Your task to perform on an android device: turn on wifi Image 0: 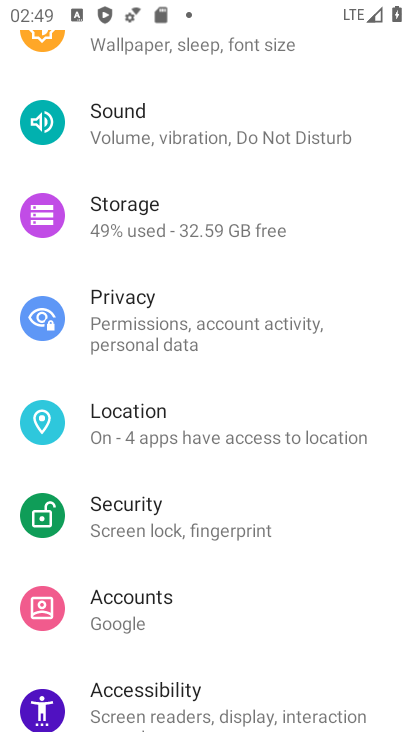
Step 0: drag from (335, 120) to (296, 621)
Your task to perform on an android device: turn on wifi Image 1: 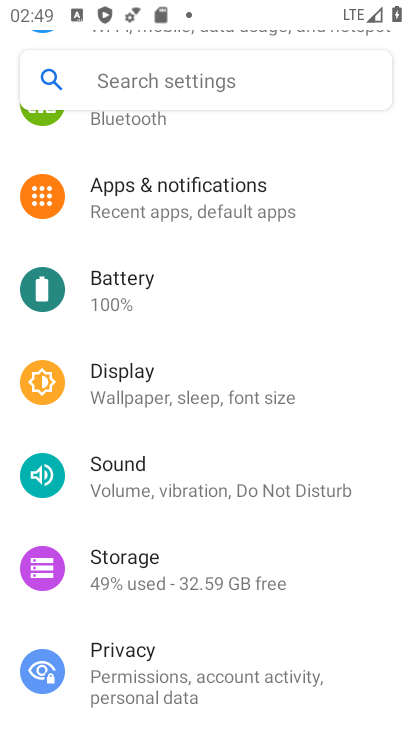
Step 1: drag from (306, 155) to (256, 599)
Your task to perform on an android device: turn on wifi Image 2: 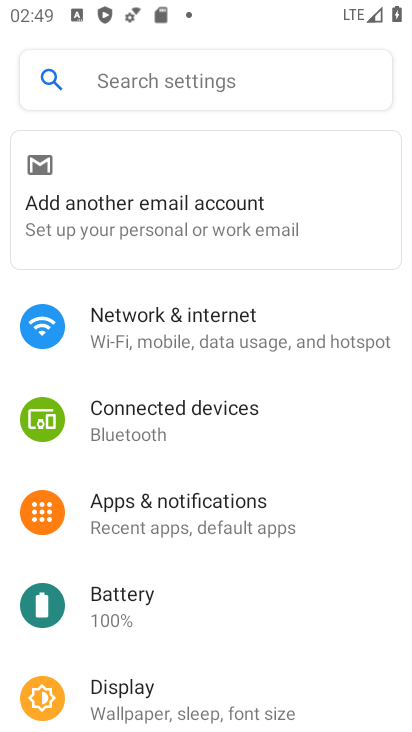
Step 2: click (313, 333)
Your task to perform on an android device: turn on wifi Image 3: 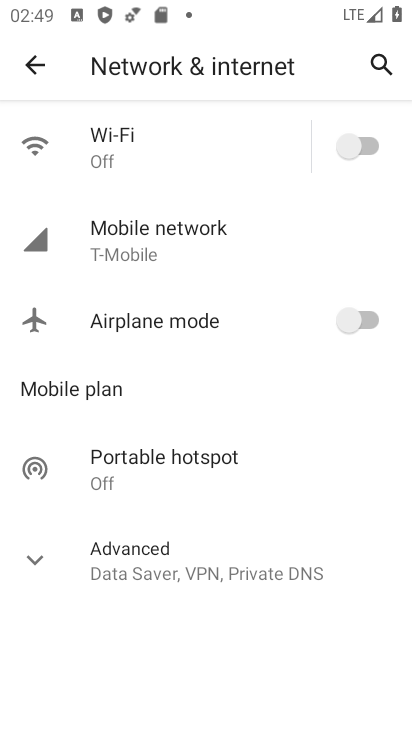
Step 3: click (371, 142)
Your task to perform on an android device: turn on wifi Image 4: 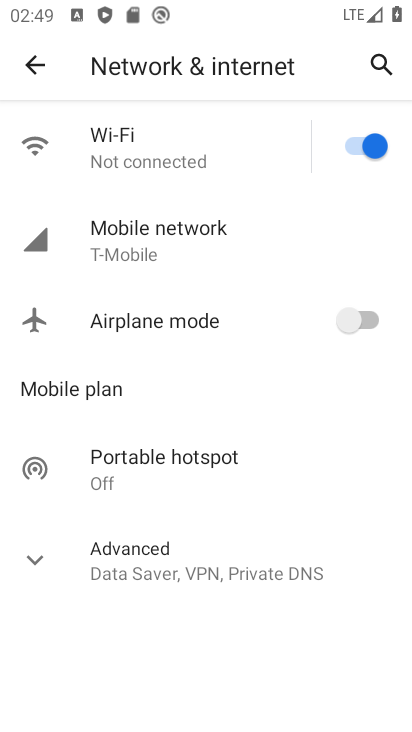
Step 4: task complete